Your task to perform on an android device: Do I have any events tomorrow? Image 0: 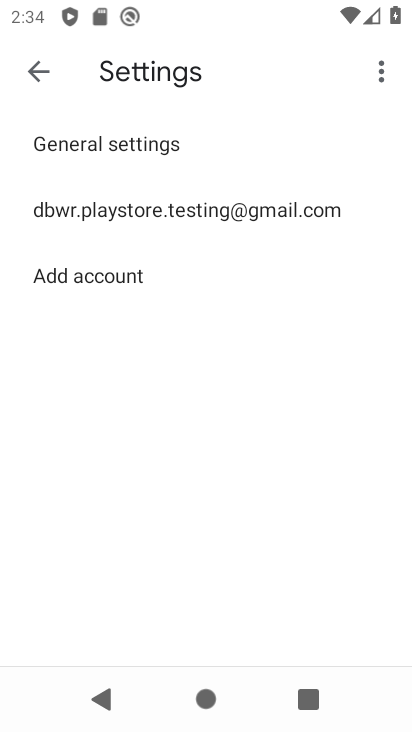
Step 0: press home button
Your task to perform on an android device: Do I have any events tomorrow? Image 1: 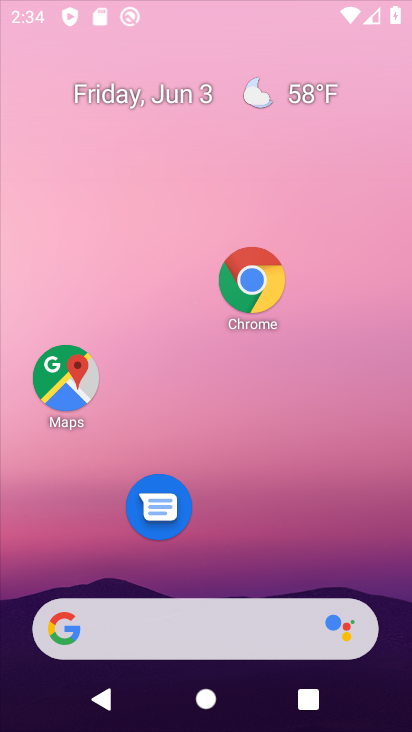
Step 1: drag from (246, 558) to (228, 100)
Your task to perform on an android device: Do I have any events tomorrow? Image 2: 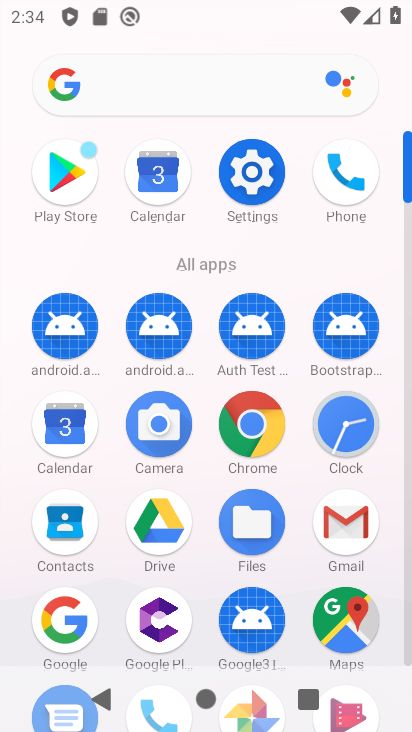
Step 2: click (68, 433)
Your task to perform on an android device: Do I have any events tomorrow? Image 3: 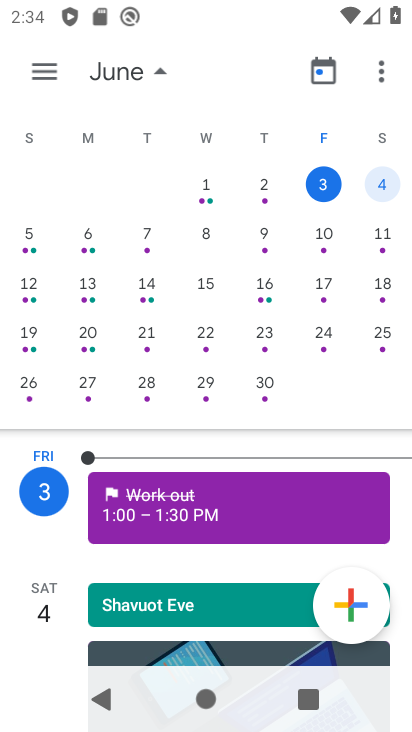
Step 3: click (382, 184)
Your task to perform on an android device: Do I have any events tomorrow? Image 4: 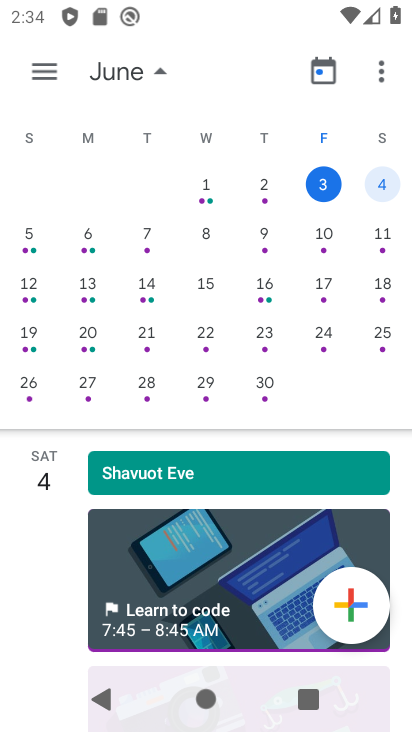
Step 4: task complete